Your task to perform on an android device: search for starred emails in the gmail app Image 0: 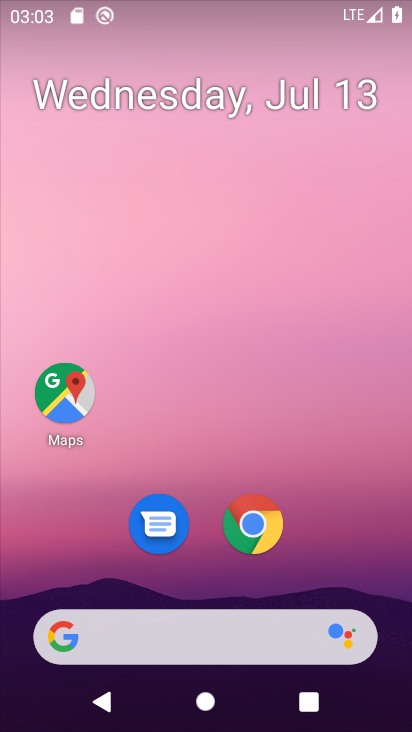
Step 0: drag from (323, 532) to (385, 75)
Your task to perform on an android device: search for starred emails in the gmail app Image 1: 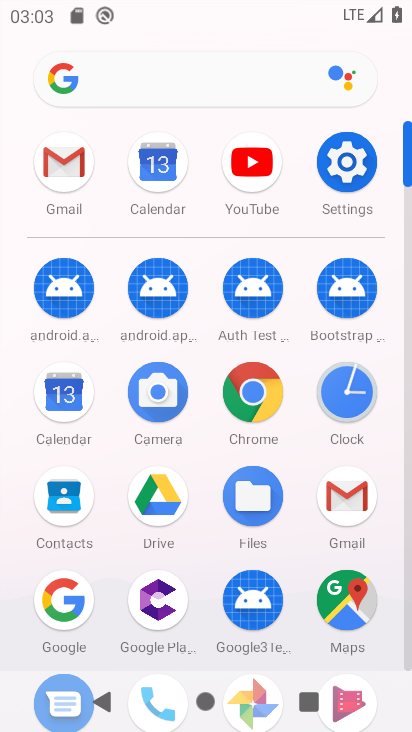
Step 1: click (79, 166)
Your task to perform on an android device: search for starred emails in the gmail app Image 2: 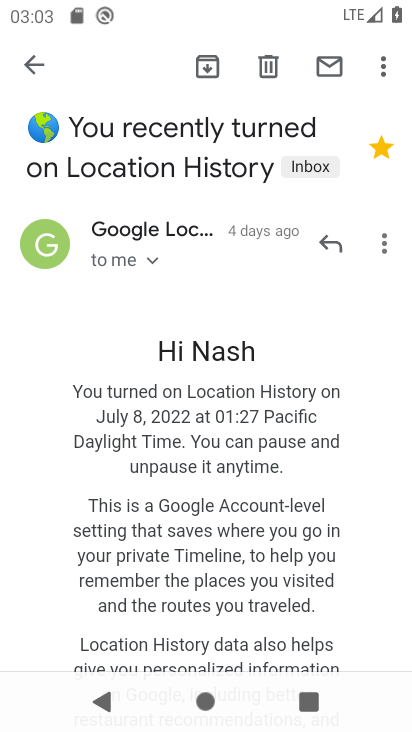
Step 2: task complete